Your task to perform on an android device: Open settings Image 0: 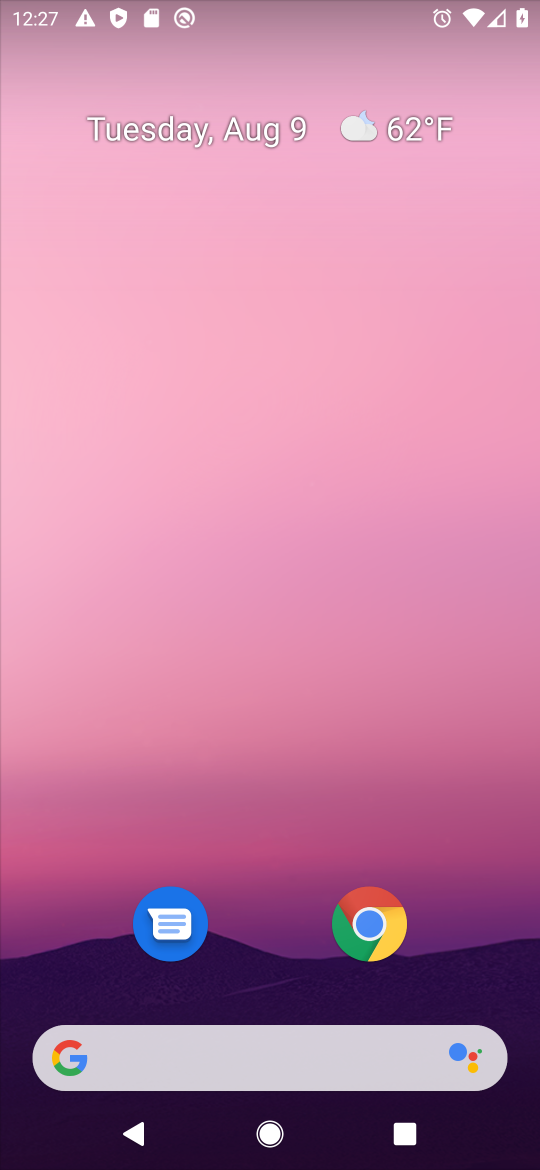
Step 0: drag from (279, 1014) to (189, 11)
Your task to perform on an android device: Open settings Image 1: 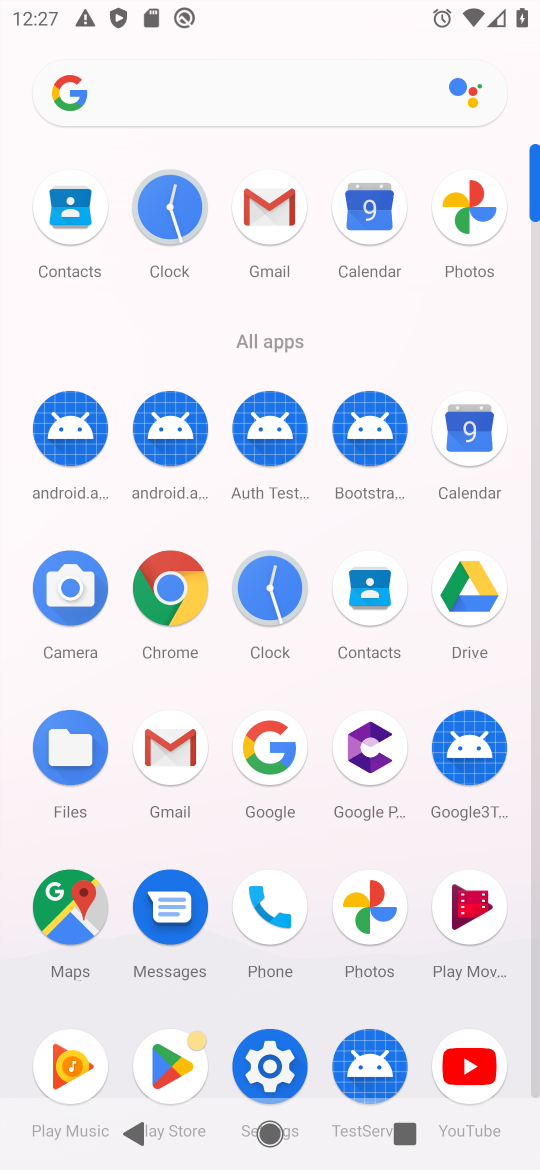
Step 1: click (253, 1069)
Your task to perform on an android device: Open settings Image 2: 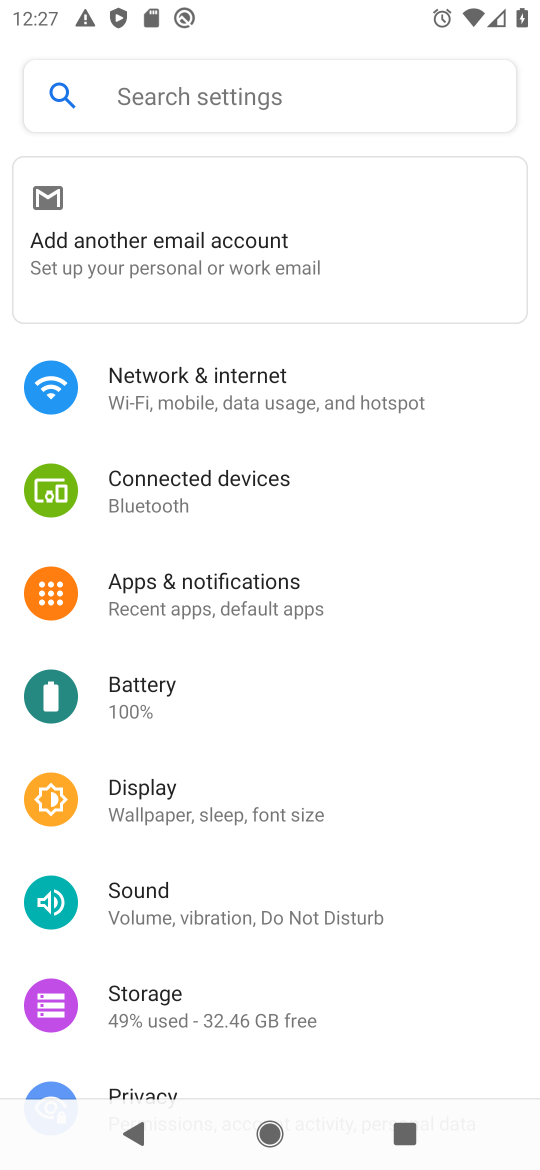
Step 2: task complete